Your task to perform on an android device: turn on the 12-hour format for clock Image 0: 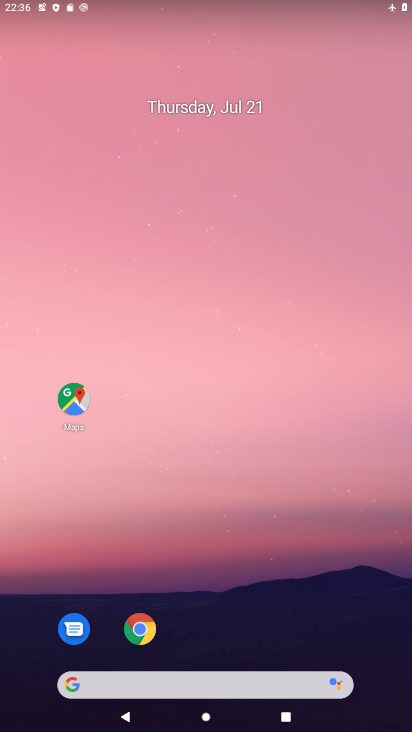
Step 0: press home button
Your task to perform on an android device: turn on the 12-hour format for clock Image 1: 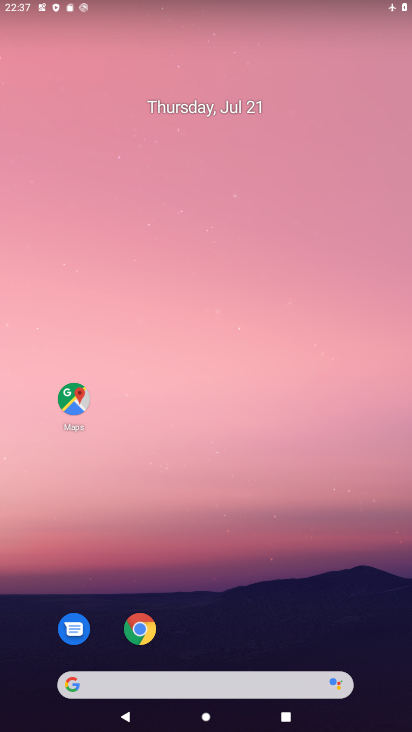
Step 1: drag from (260, 639) to (257, 76)
Your task to perform on an android device: turn on the 12-hour format for clock Image 2: 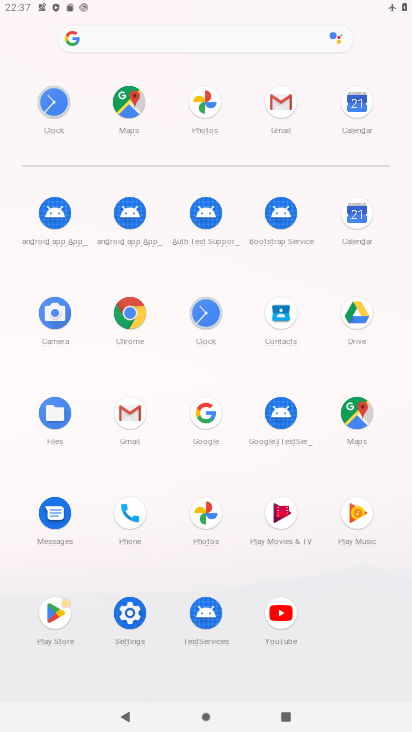
Step 2: click (130, 606)
Your task to perform on an android device: turn on the 12-hour format for clock Image 3: 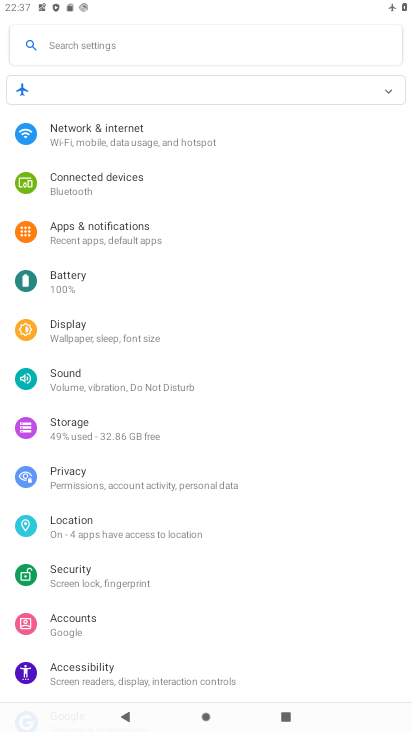
Step 3: drag from (220, 637) to (153, 133)
Your task to perform on an android device: turn on the 12-hour format for clock Image 4: 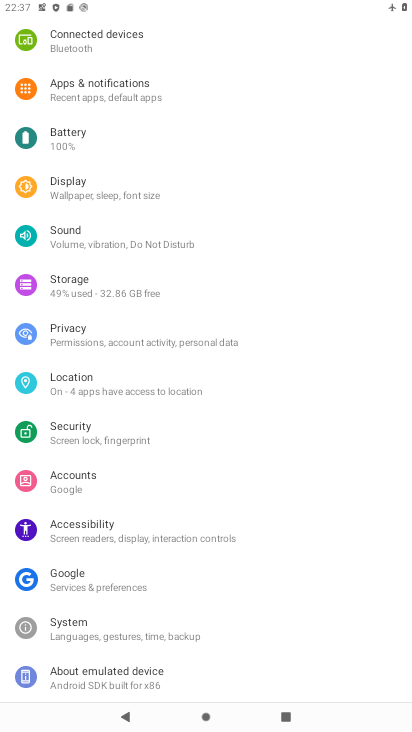
Step 4: click (66, 632)
Your task to perform on an android device: turn on the 12-hour format for clock Image 5: 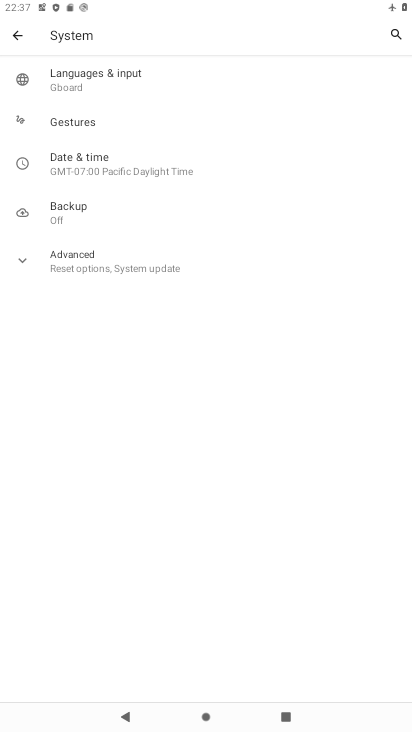
Step 5: click (80, 166)
Your task to perform on an android device: turn on the 12-hour format for clock Image 6: 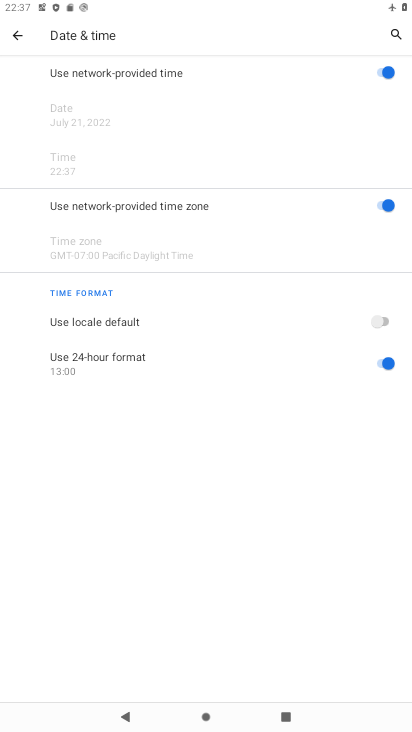
Step 6: click (384, 368)
Your task to perform on an android device: turn on the 12-hour format for clock Image 7: 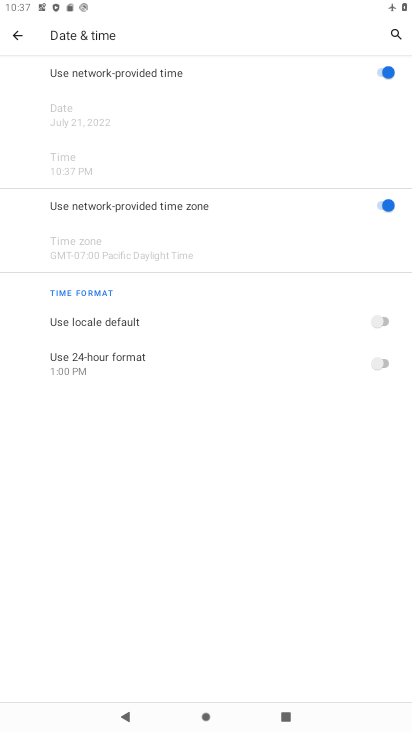
Step 7: task complete